Your task to perform on an android device: toggle show notifications on the lock screen Image 0: 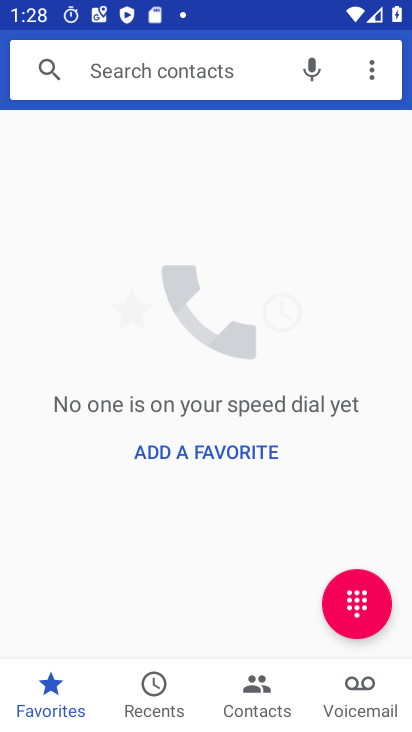
Step 0: press home button
Your task to perform on an android device: toggle show notifications on the lock screen Image 1: 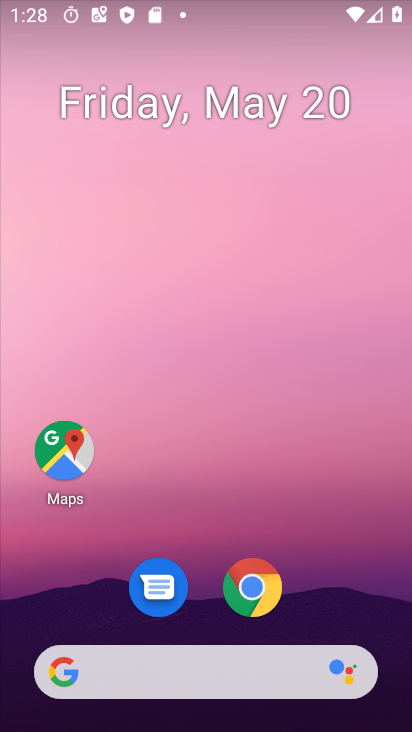
Step 1: drag from (335, 539) to (347, 179)
Your task to perform on an android device: toggle show notifications on the lock screen Image 2: 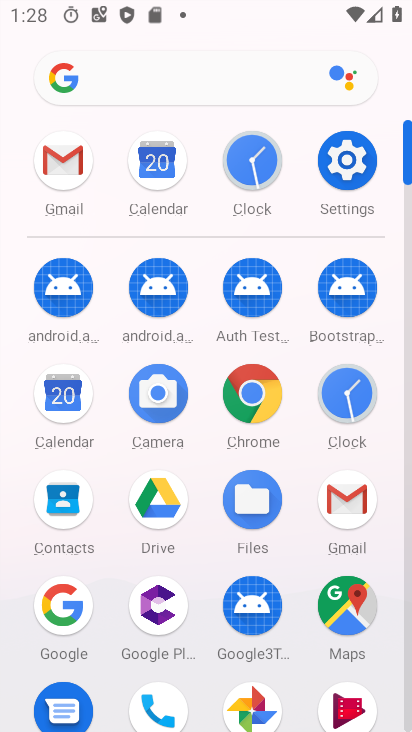
Step 2: click (366, 155)
Your task to perform on an android device: toggle show notifications on the lock screen Image 3: 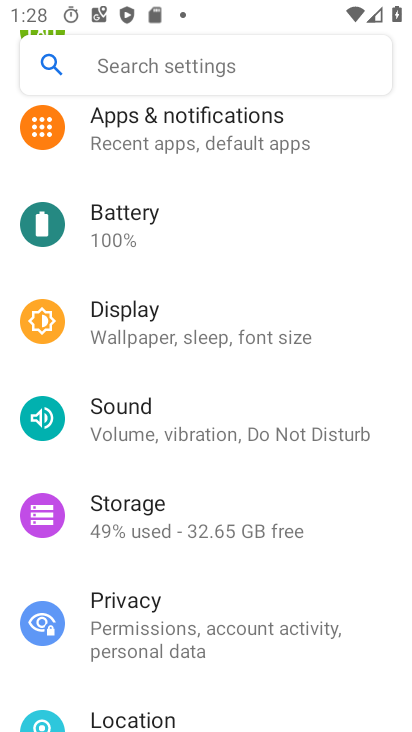
Step 3: click (259, 116)
Your task to perform on an android device: toggle show notifications on the lock screen Image 4: 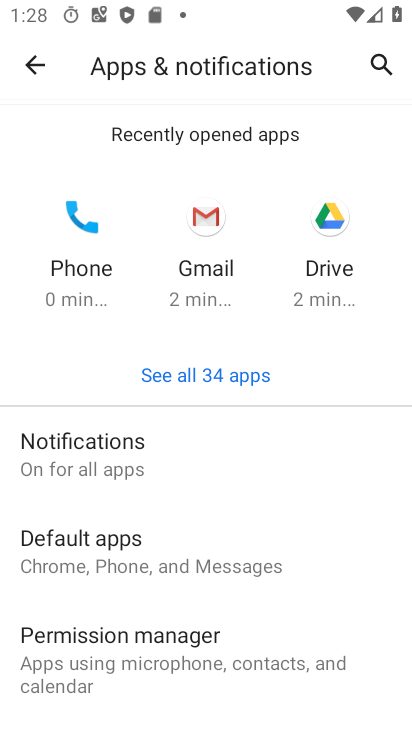
Step 4: click (111, 483)
Your task to perform on an android device: toggle show notifications on the lock screen Image 5: 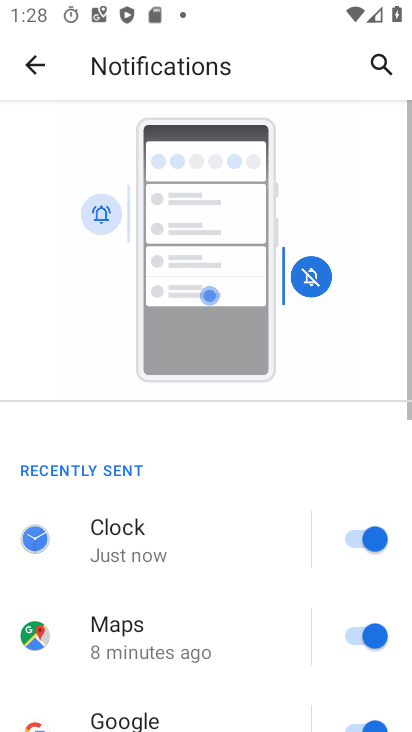
Step 5: drag from (270, 626) to (312, 163)
Your task to perform on an android device: toggle show notifications on the lock screen Image 6: 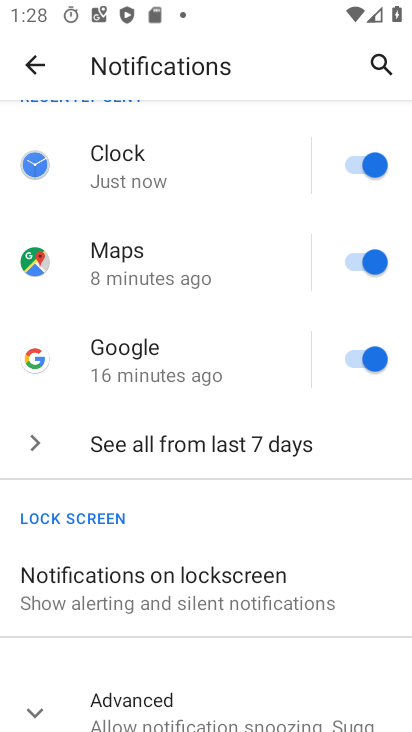
Step 6: click (274, 585)
Your task to perform on an android device: toggle show notifications on the lock screen Image 7: 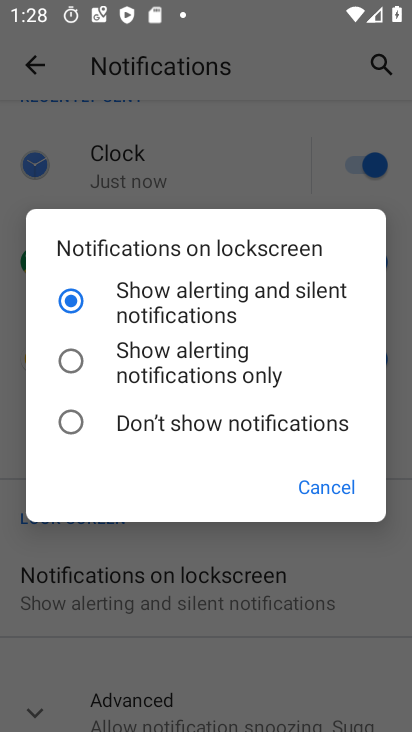
Step 7: click (205, 369)
Your task to perform on an android device: toggle show notifications on the lock screen Image 8: 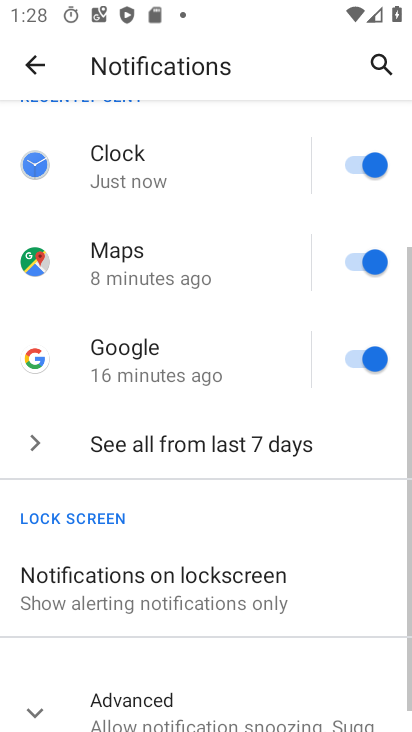
Step 8: task complete